Your task to perform on an android device: See recent photos Image 0: 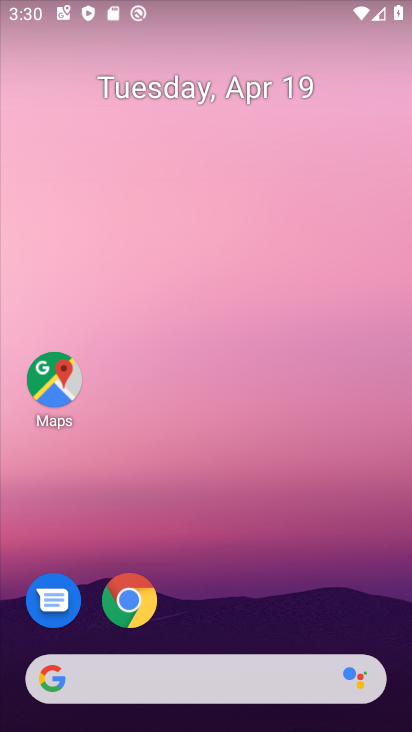
Step 0: drag from (201, 650) to (203, 75)
Your task to perform on an android device: See recent photos Image 1: 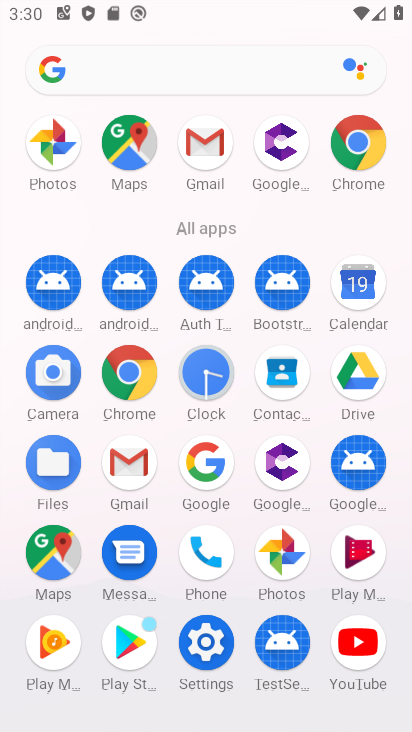
Step 1: click (40, 138)
Your task to perform on an android device: See recent photos Image 2: 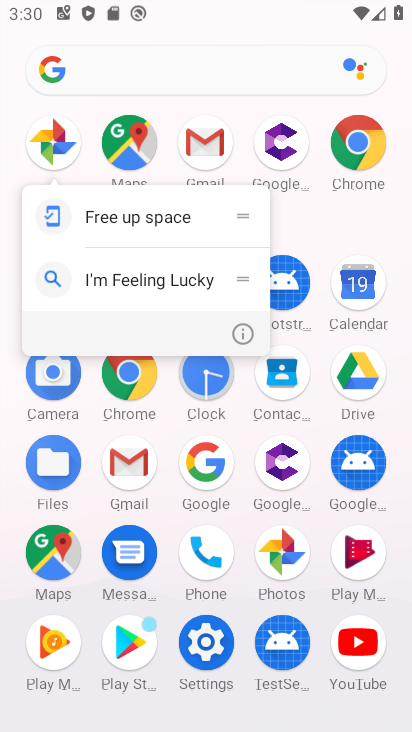
Step 2: click (53, 152)
Your task to perform on an android device: See recent photos Image 3: 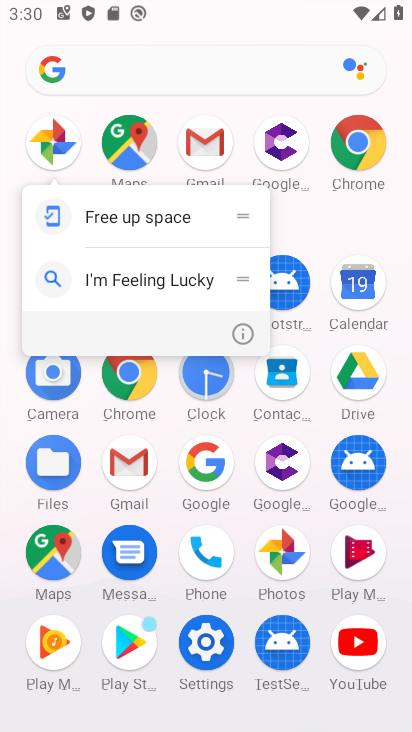
Step 3: click (54, 151)
Your task to perform on an android device: See recent photos Image 4: 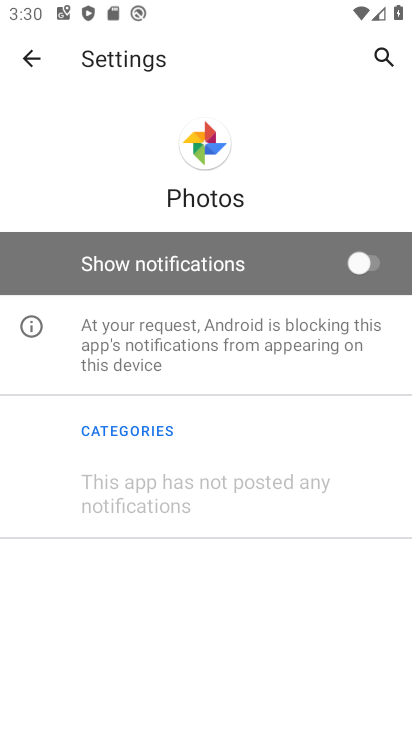
Step 4: click (26, 54)
Your task to perform on an android device: See recent photos Image 5: 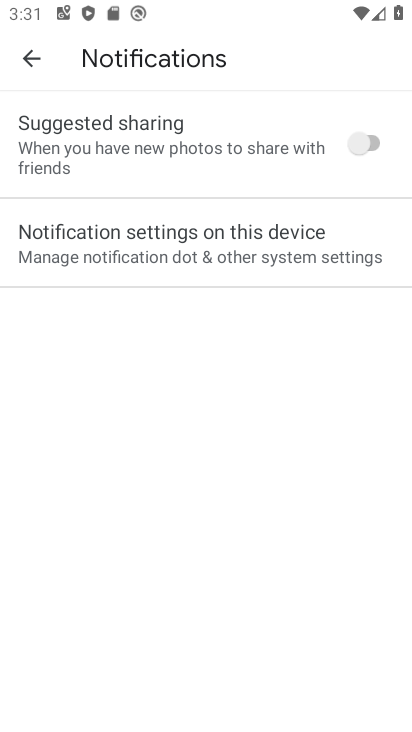
Step 5: click (40, 60)
Your task to perform on an android device: See recent photos Image 6: 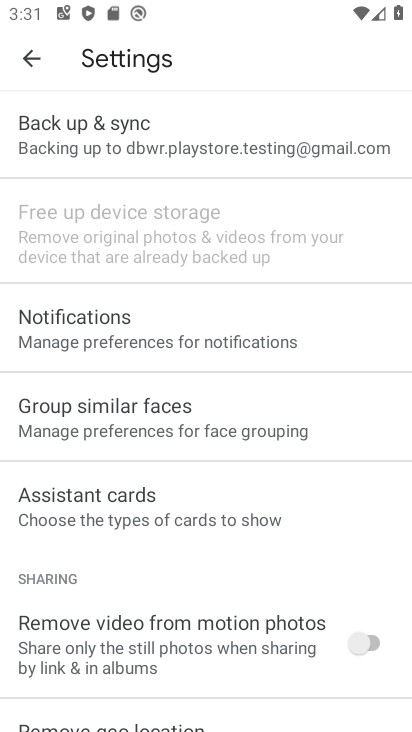
Step 6: click (39, 51)
Your task to perform on an android device: See recent photos Image 7: 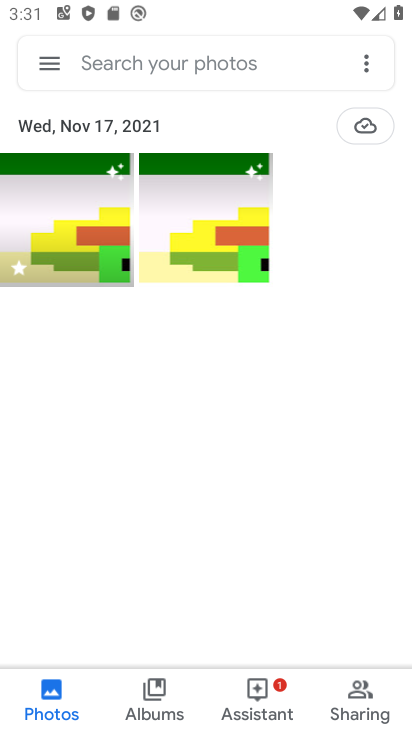
Step 7: task complete